Your task to perform on an android device: check the backup settings in the google photos Image 0: 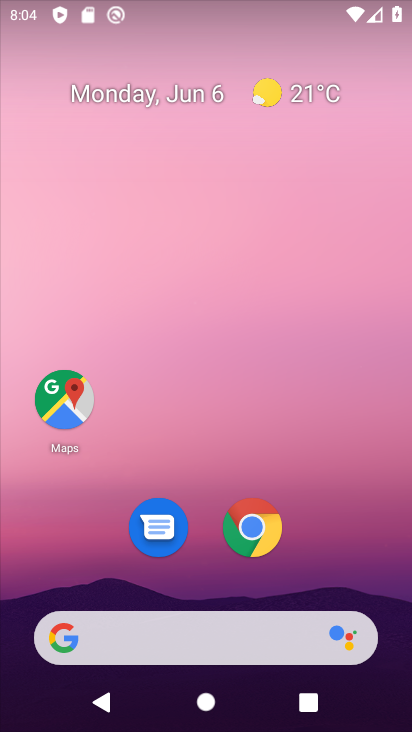
Step 0: drag from (213, 572) to (136, 123)
Your task to perform on an android device: check the backup settings in the google photos Image 1: 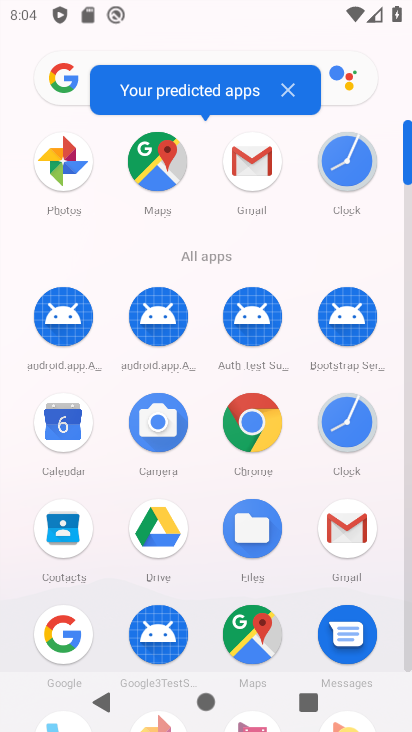
Step 1: click (54, 170)
Your task to perform on an android device: check the backup settings in the google photos Image 2: 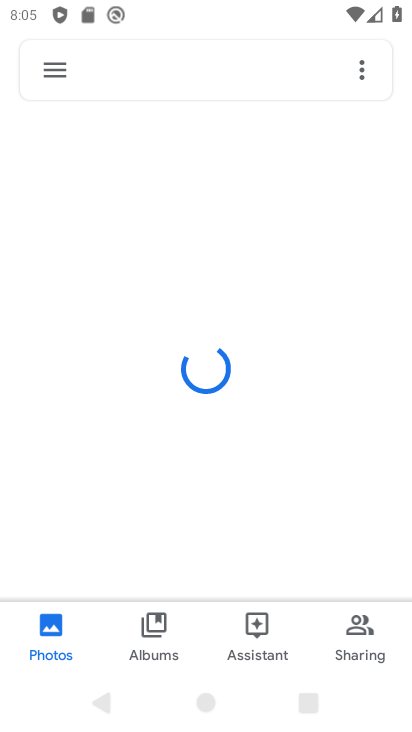
Step 2: click (48, 66)
Your task to perform on an android device: check the backup settings in the google photos Image 3: 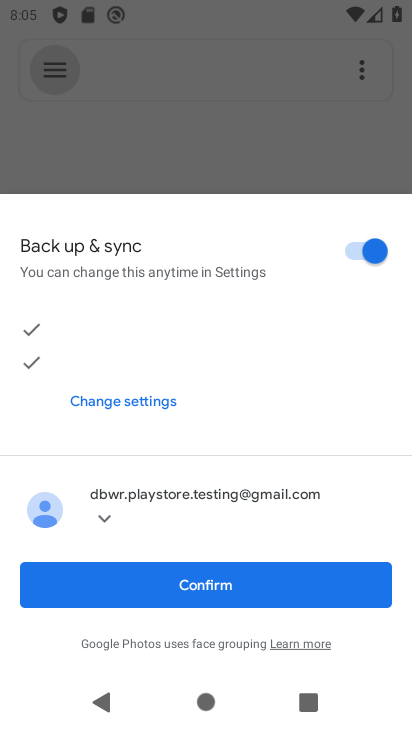
Step 3: click (235, 581)
Your task to perform on an android device: check the backup settings in the google photos Image 4: 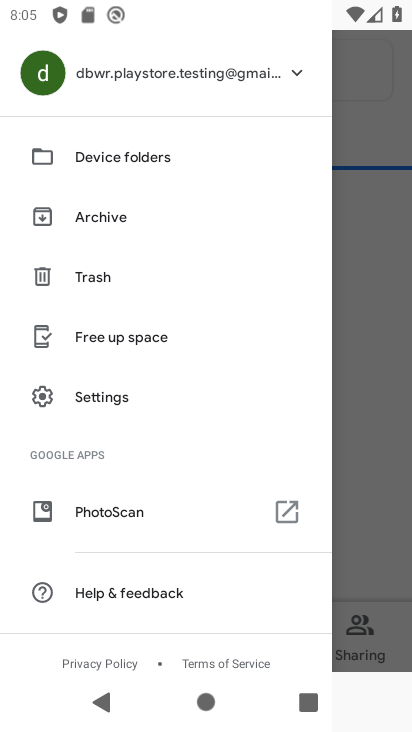
Step 4: drag from (132, 543) to (125, 307)
Your task to perform on an android device: check the backup settings in the google photos Image 5: 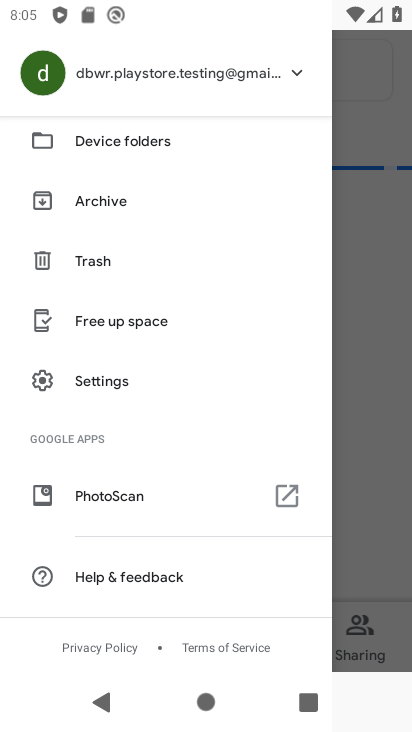
Step 5: click (119, 388)
Your task to perform on an android device: check the backup settings in the google photos Image 6: 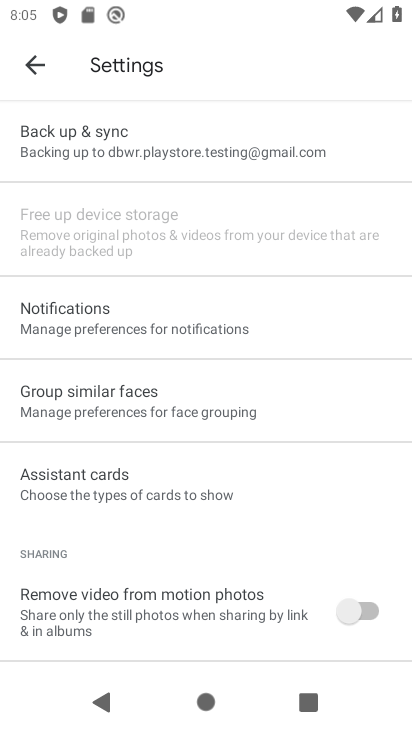
Step 6: click (150, 140)
Your task to perform on an android device: check the backup settings in the google photos Image 7: 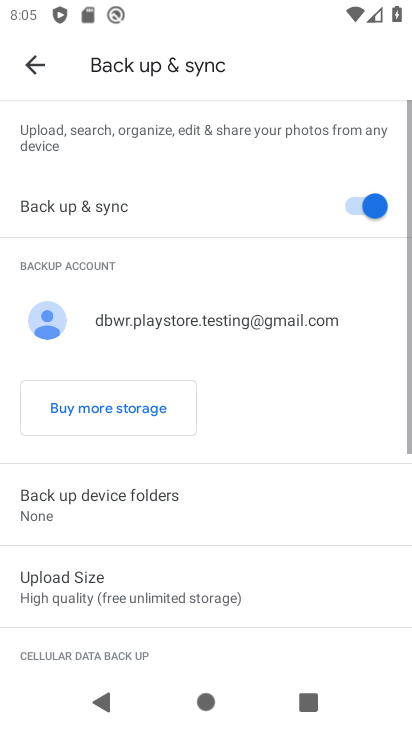
Step 7: task complete